Your task to perform on an android device: change the upload size in google photos Image 0: 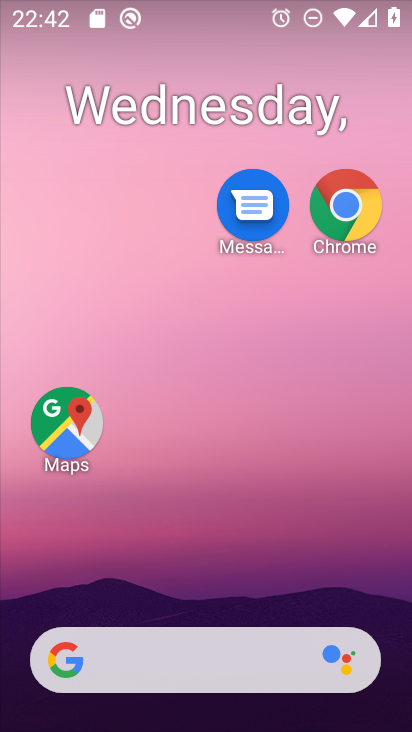
Step 0: drag from (241, 561) to (272, 195)
Your task to perform on an android device: change the upload size in google photos Image 1: 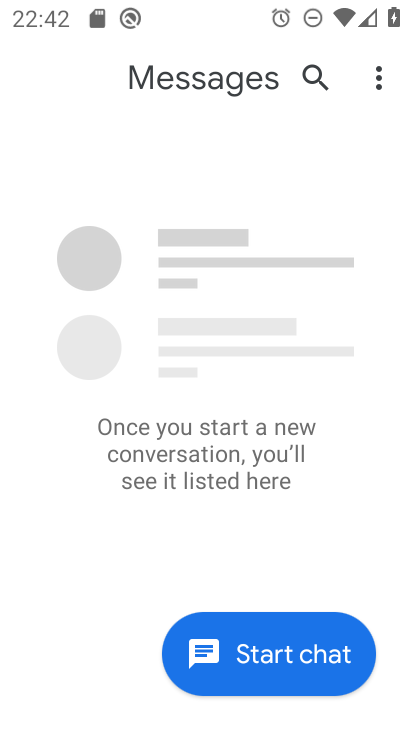
Step 1: press home button
Your task to perform on an android device: change the upload size in google photos Image 2: 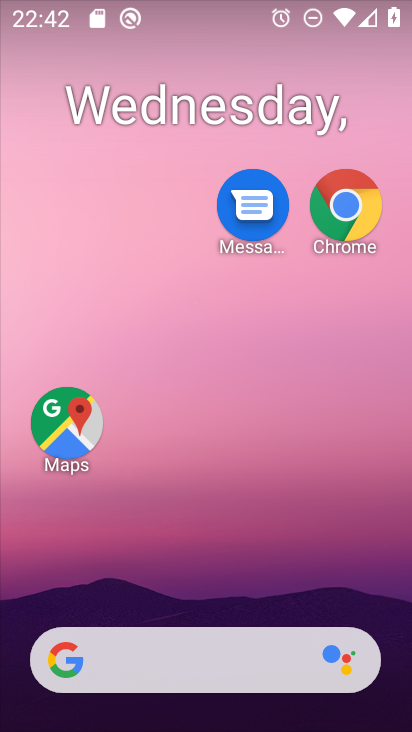
Step 2: drag from (207, 512) to (253, 20)
Your task to perform on an android device: change the upload size in google photos Image 3: 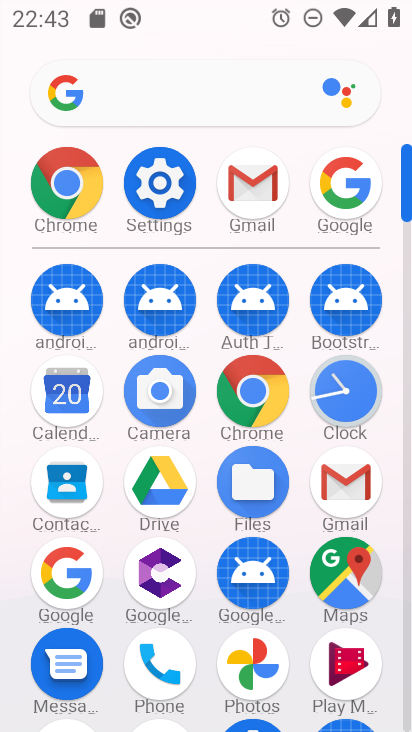
Step 3: click (264, 658)
Your task to perform on an android device: change the upload size in google photos Image 4: 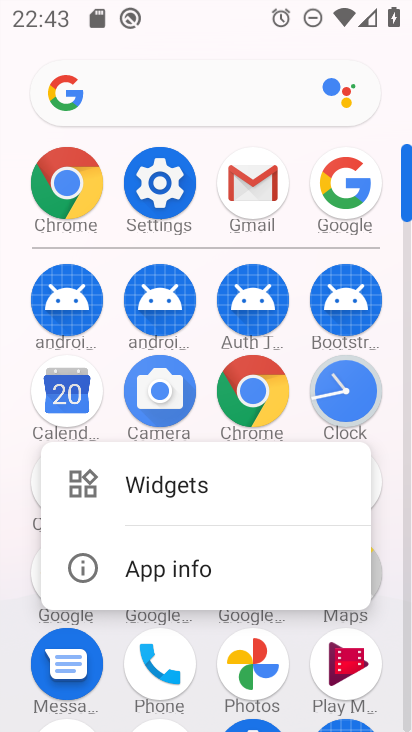
Step 4: click (200, 574)
Your task to perform on an android device: change the upload size in google photos Image 5: 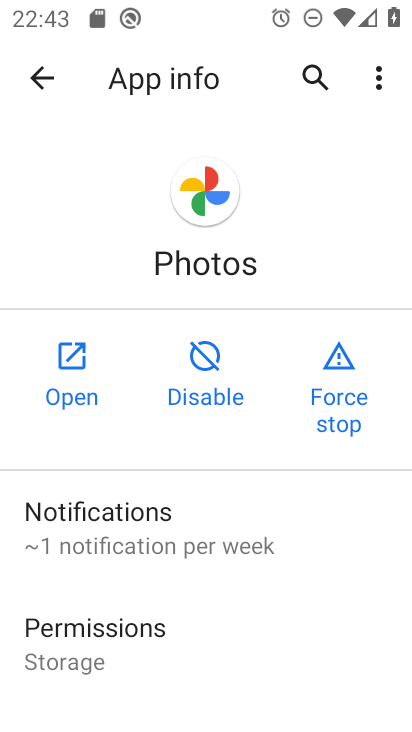
Step 5: click (94, 366)
Your task to perform on an android device: change the upload size in google photos Image 6: 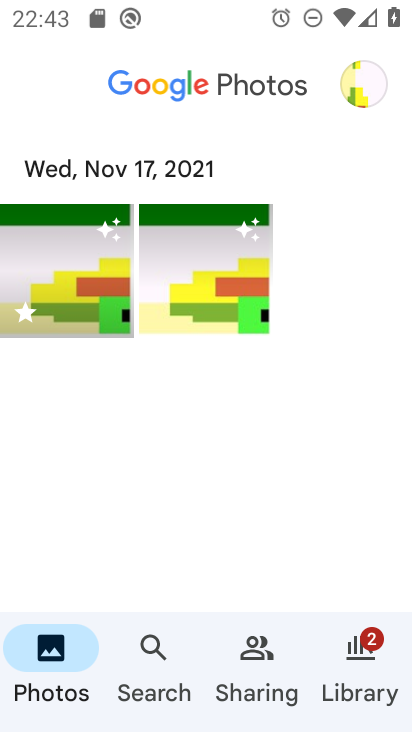
Step 6: click (359, 83)
Your task to perform on an android device: change the upload size in google photos Image 7: 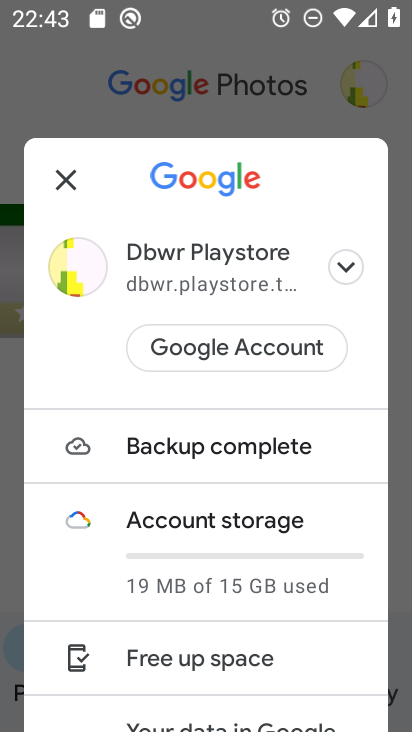
Step 7: drag from (236, 614) to (304, 199)
Your task to perform on an android device: change the upload size in google photos Image 8: 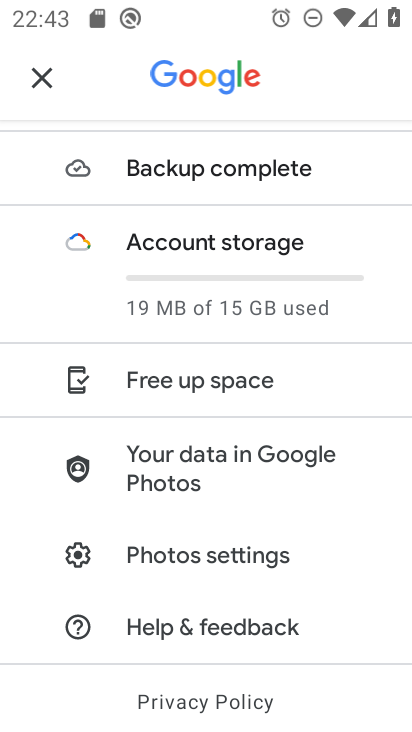
Step 8: click (201, 558)
Your task to perform on an android device: change the upload size in google photos Image 9: 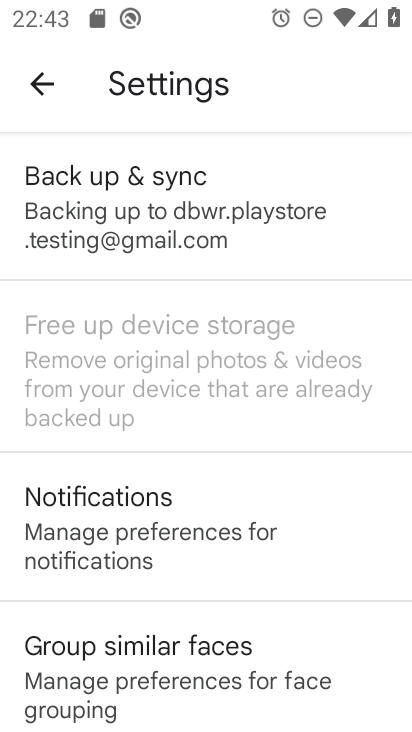
Step 9: click (148, 207)
Your task to perform on an android device: change the upload size in google photos Image 10: 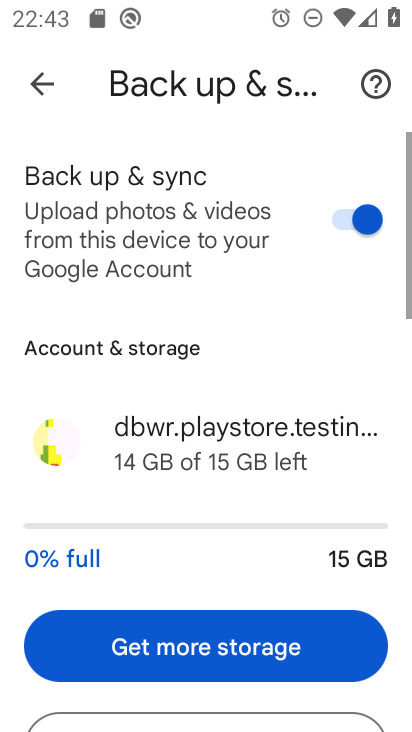
Step 10: drag from (274, 614) to (293, 300)
Your task to perform on an android device: change the upload size in google photos Image 11: 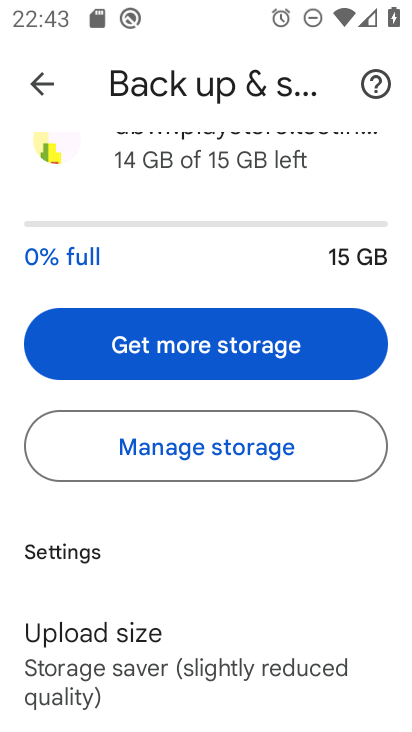
Step 11: drag from (225, 592) to (255, 242)
Your task to perform on an android device: change the upload size in google photos Image 12: 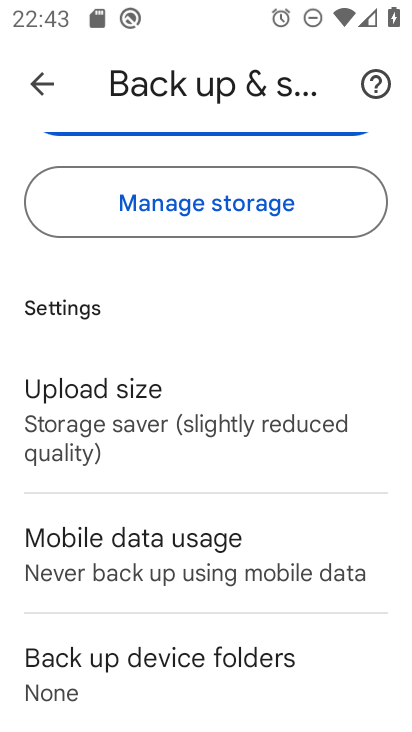
Step 12: click (153, 406)
Your task to perform on an android device: change the upload size in google photos Image 13: 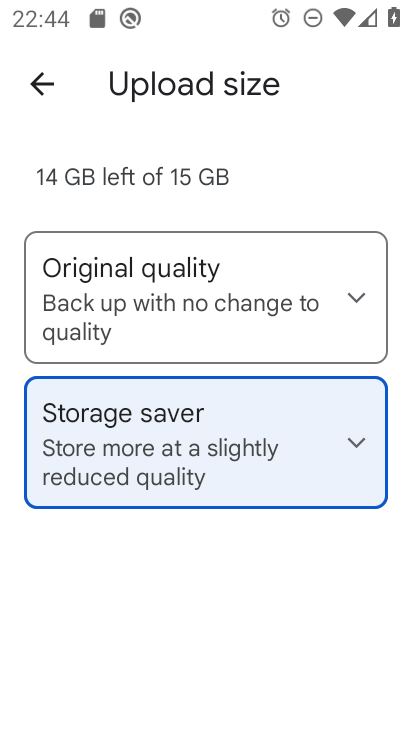
Step 13: task complete